Your task to perform on an android device: check data usage Image 0: 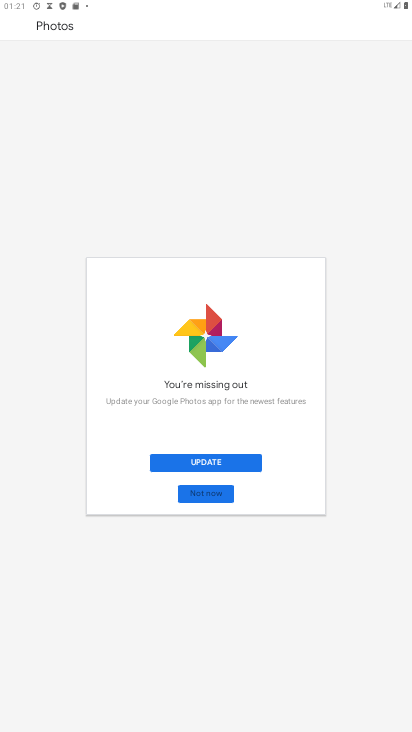
Step 0: press home button
Your task to perform on an android device: check data usage Image 1: 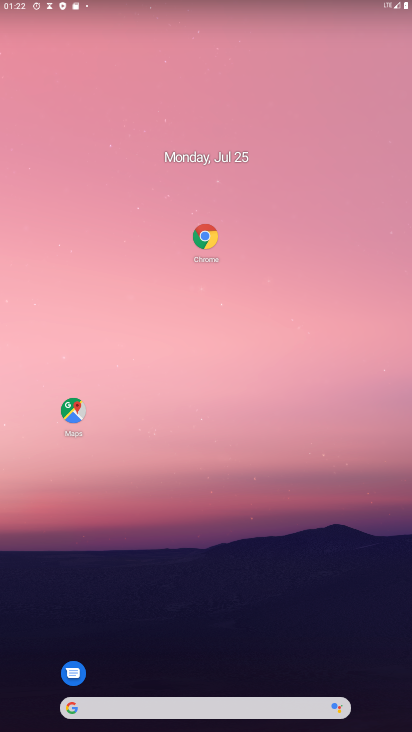
Step 1: drag from (169, 678) to (180, 5)
Your task to perform on an android device: check data usage Image 2: 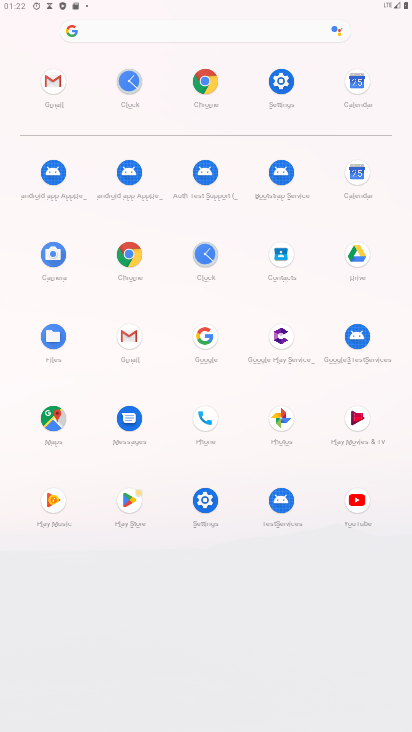
Step 2: click (279, 76)
Your task to perform on an android device: check data usage Image 3: 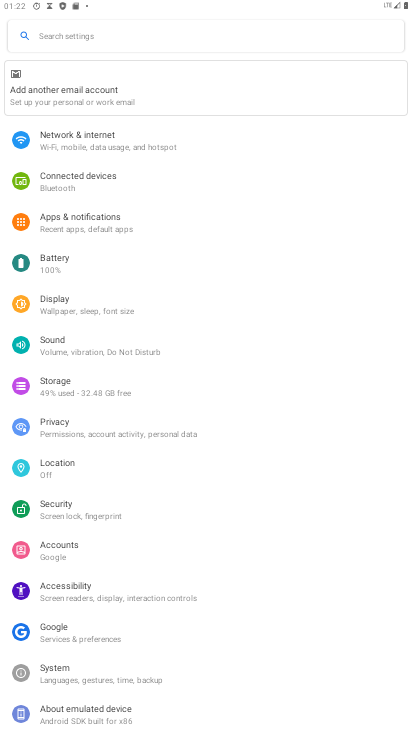
Step 3: click (140, 149)
Your task to perform on an android device: check data usage Image 4: 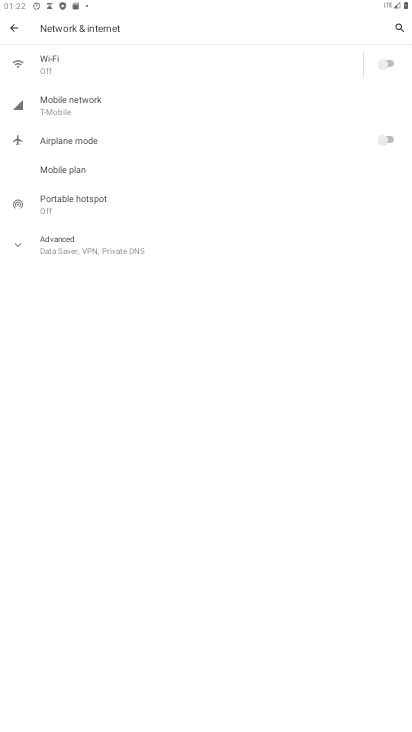
Step 4: task complete